Your task to perform on an android device: Open Google Chrome Image 0: 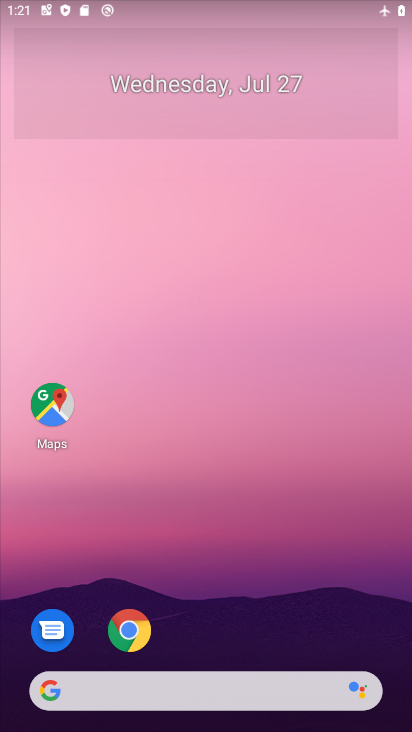
Step 0: click (133, 630)
Your task to perform on an android device: Open Google Chrome Image 1: 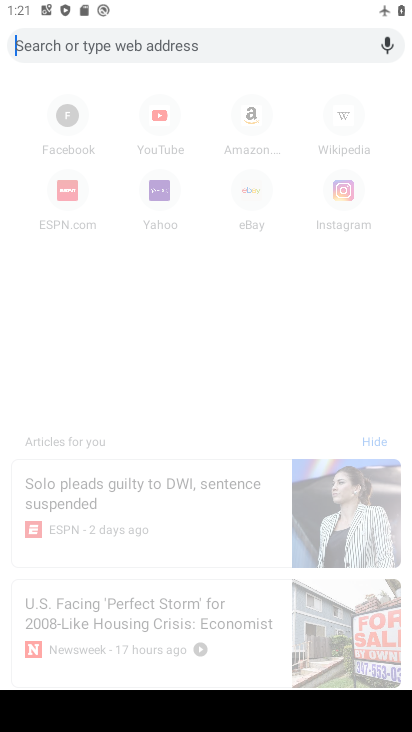
Step 1: task complete